Your task to perform on an android device: Go to settings Image 0: 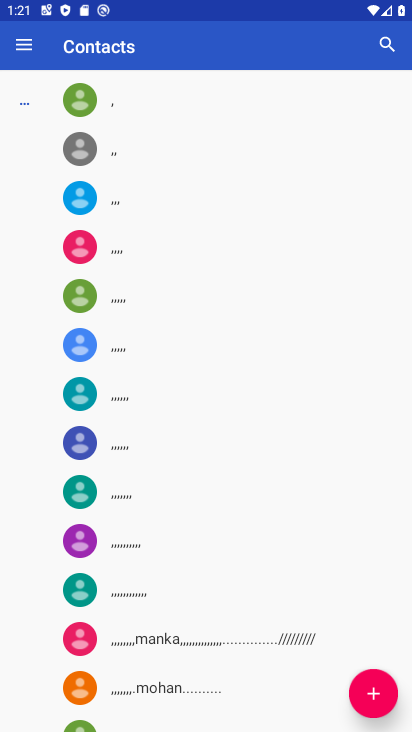
Step 0: press home button
Your task to perform on an android device: Go to settings Image 1: 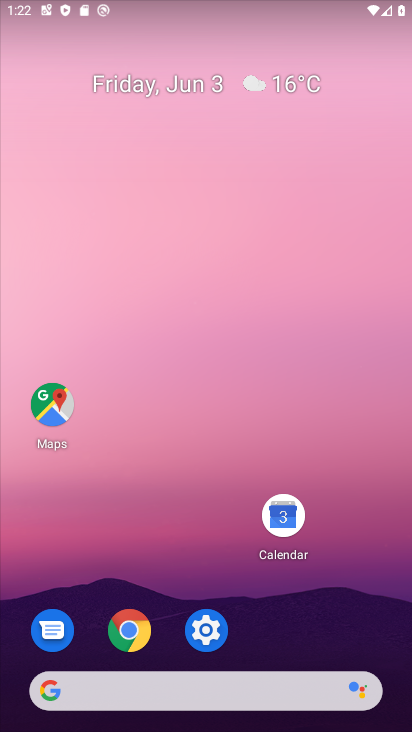
Step 1: drag from (370, 731) to (279, 234)
Your task to perform on an android device: Go to settings Image 2: 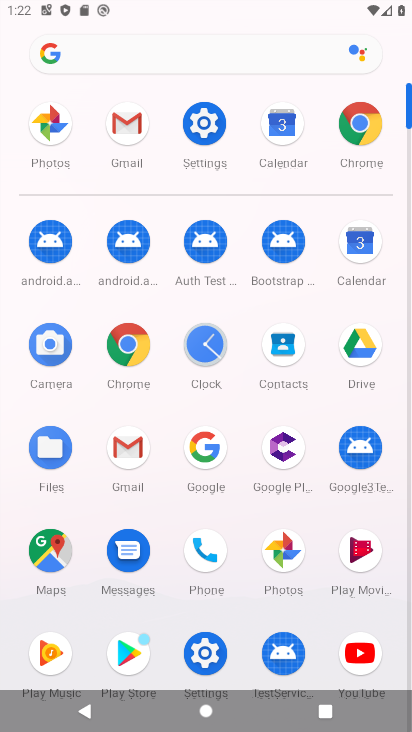
Step 2: click (202, 125)
Your task to perform on an android device: Go to settings Image 3: 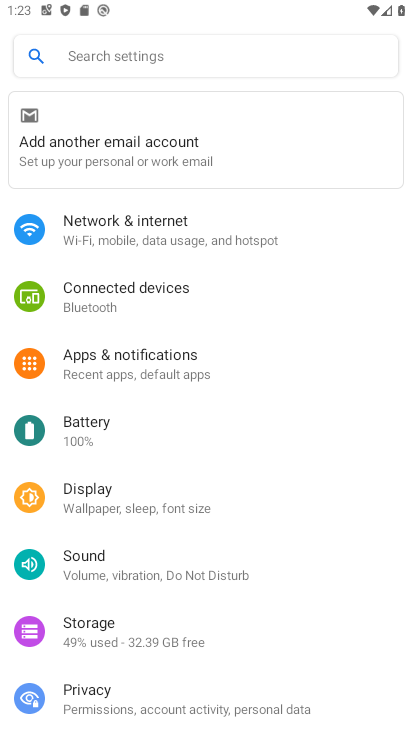
Step 3: task complete